Your task to perform on an android device: Open Yahoo.com Image 0: 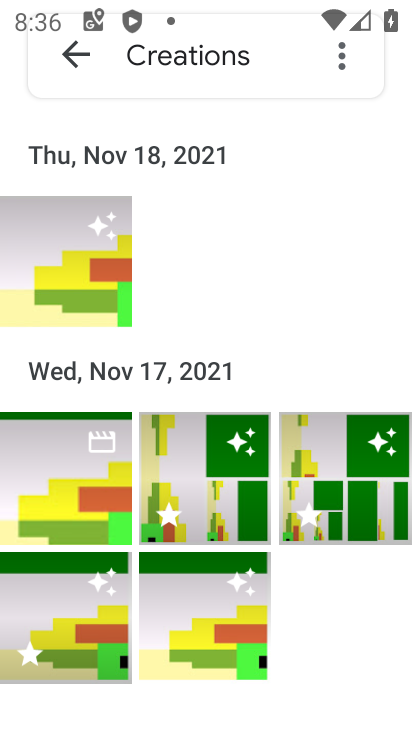
Step 0: press home button
Your task to perform on an android device: Open Yahoo.com Image 1: 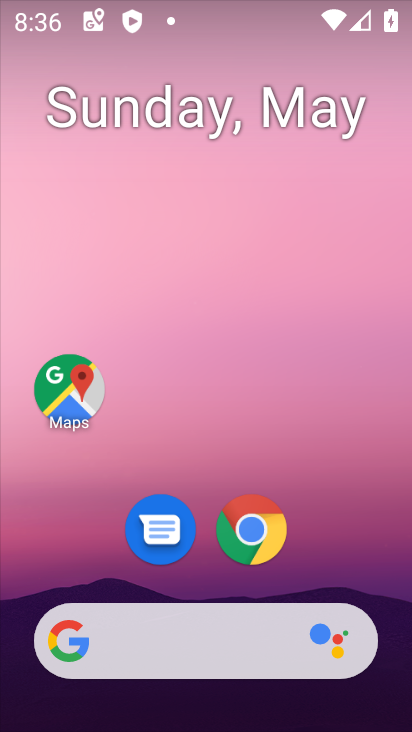
Step 1: click (229, 505)
Your task to perform on an android device: Open Yahoo.com Image 2: 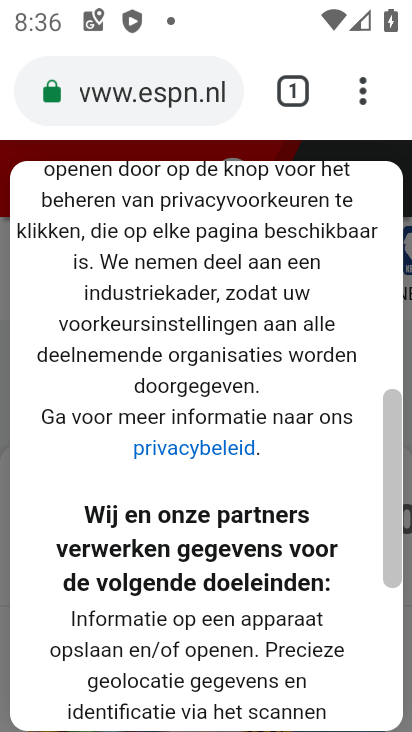
Step 2: click (129, 89)
Your task to perform on an android device: Open Yahoo.com Image 3: 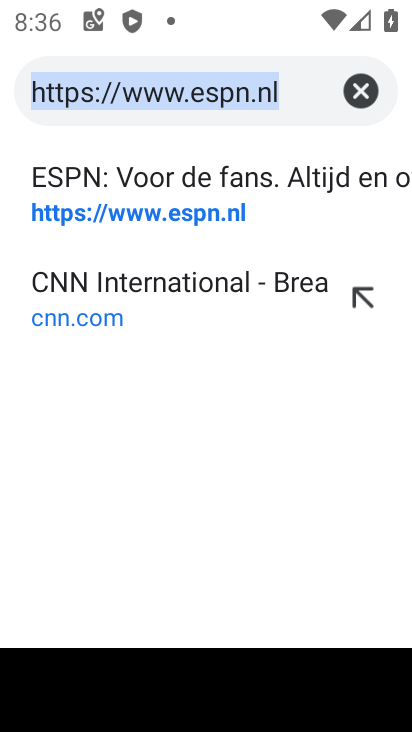
Step 3: click (367, 88)
Your task to perform on an android device: Open Yahoo.com Image 4: 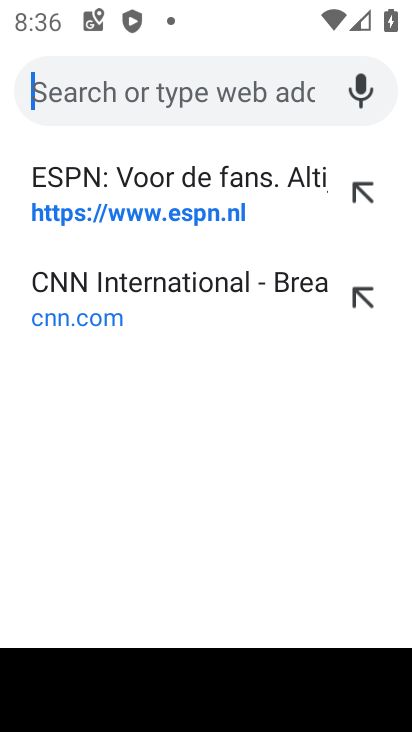
Step 4: type "yahoo.com"
Your task to perform on an android device: Open Yahoo.com Image 5: 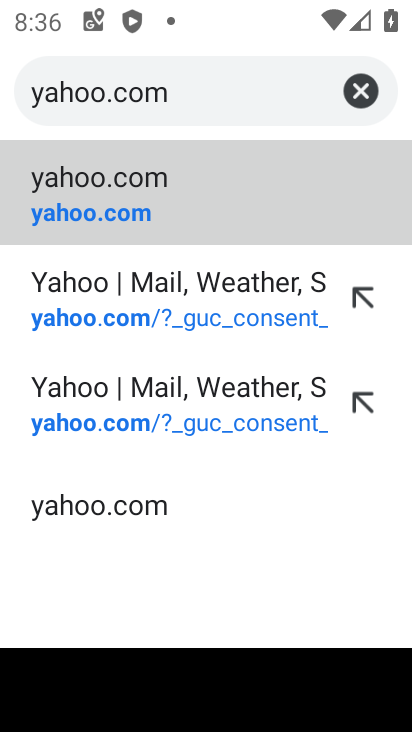
Step 5: click (103, 188)
Your task to perform on an android device: Open Yahoo.com Image 6: 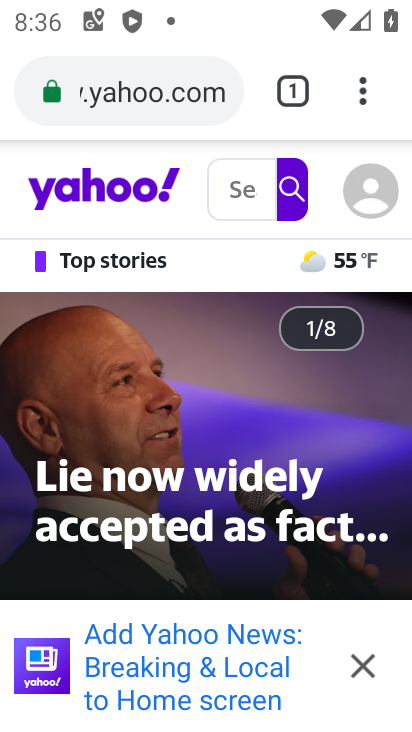
Step 6: task complete